Your task to perform on an android device: Open wifi settings Image 0: 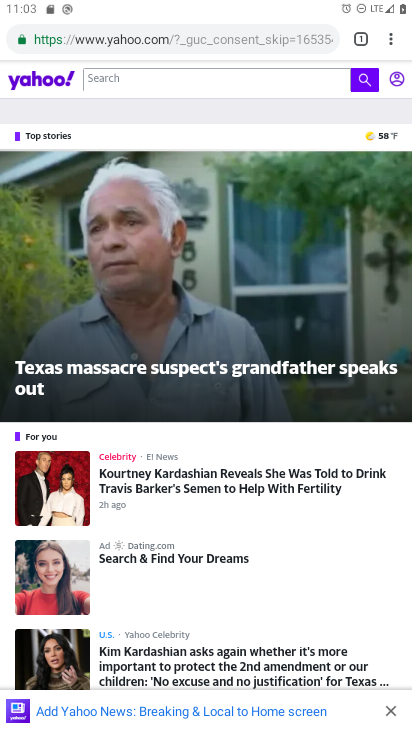
Step 0: press home button
Your task to perform on an android device: Open wifi settings Image 1: 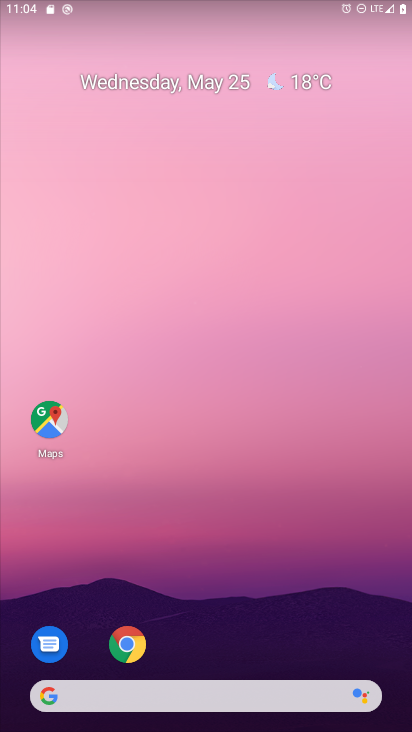
Step 1: drag from (196, 646) to (235, 72)
Your task to perform on an android device: Open wifi settings Image 2: 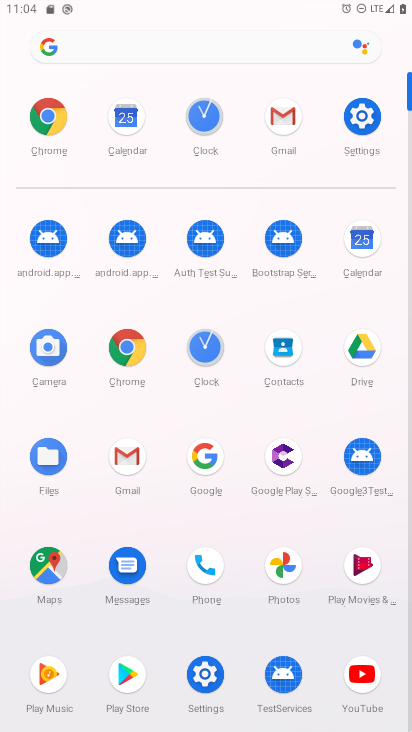
Step 2: click (359, 112)
Your task to perform on an android device: Open wifi settings Image 3: 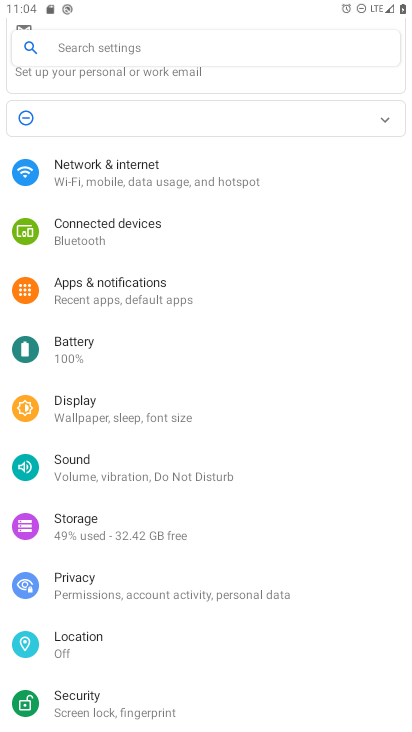
Step 3: click (161, 169)
Your task to perform on an android device: Open wifi settings Image 4: 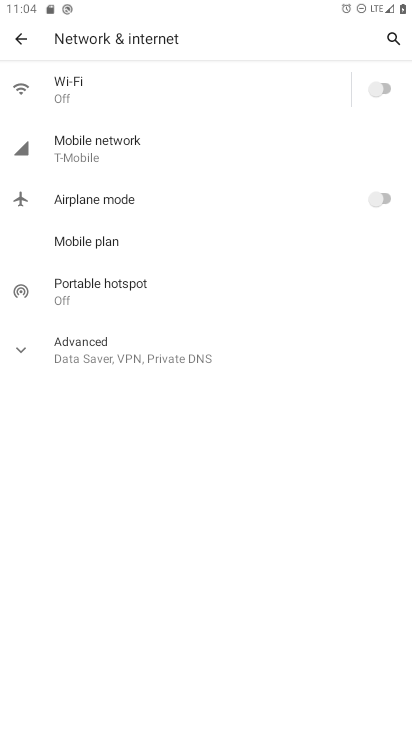
Step 4: click (107, 83)
Your task to perform on an android device: Open wifi settings Image 5: 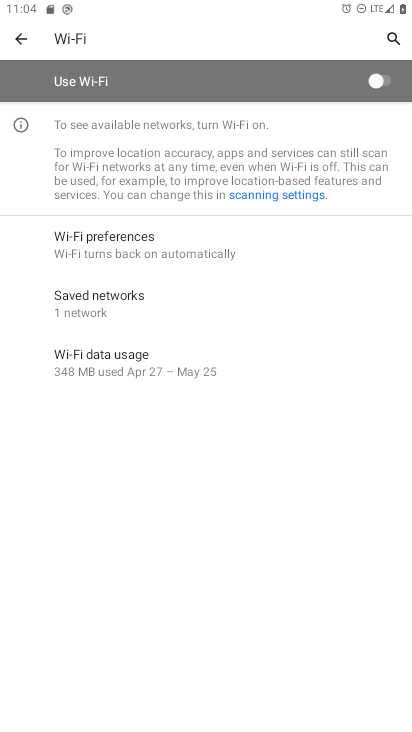
Step 5: click (378, 82)
Your task to perform on an android device: Open wifi settings Image 6: 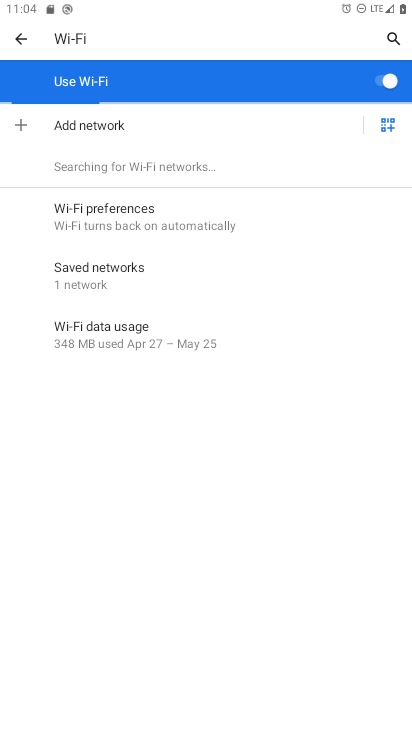
Step 6: task complete